Your task to perform on an android device: turn off picture-in-picture Image 0: 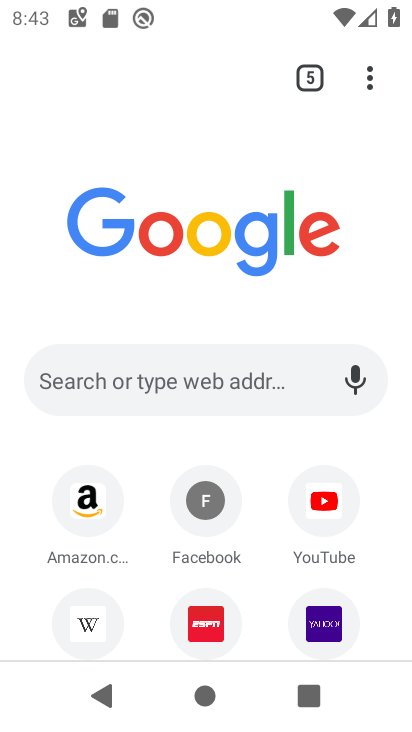
Step 0: press home button
Your task to perform on an android device: turn off picture-in-picture Image 1: 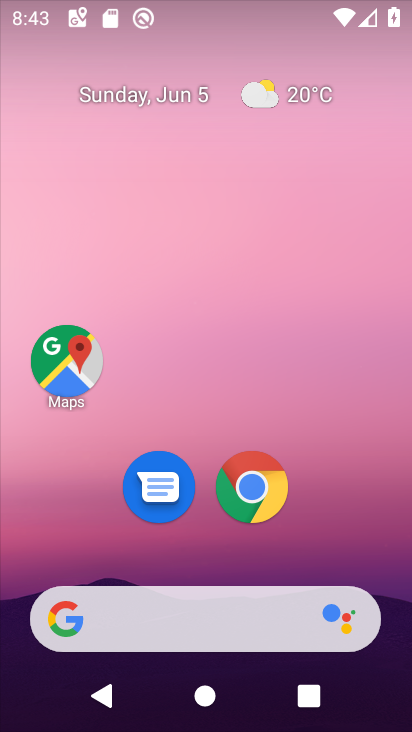
Step 1: drag from (190, 550) to (206, 240)
Your task to perform on an android device: turn off picture-in-picture Image 2: 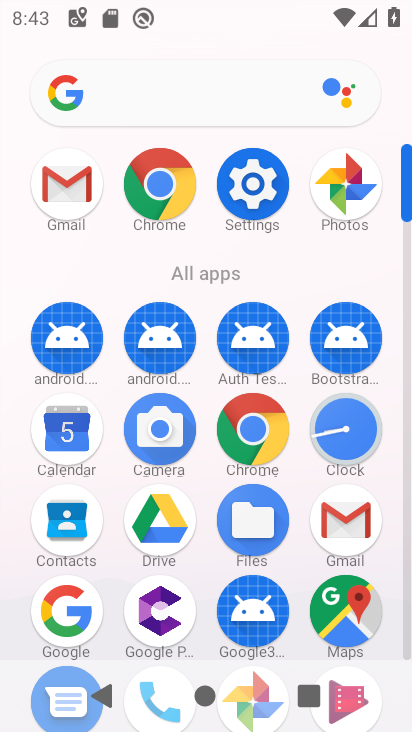
Step 2: click (247, 178)
Your task to perform on an android device: turn off picture-in-picture Image 3: 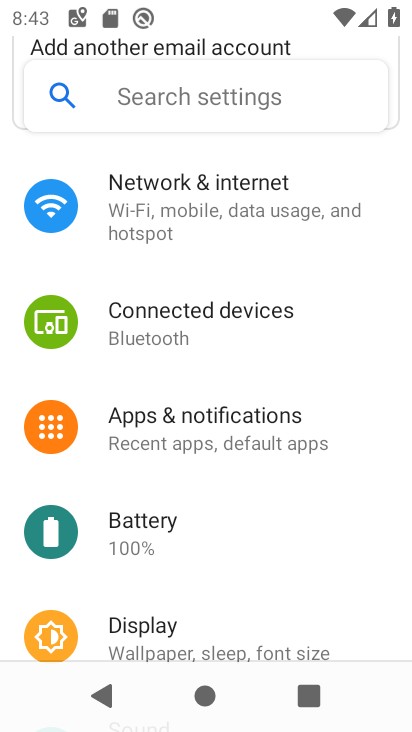
Step 3: click (215, 434)
Your task to perform on an android device: turn off picture-in-picture Image 4: 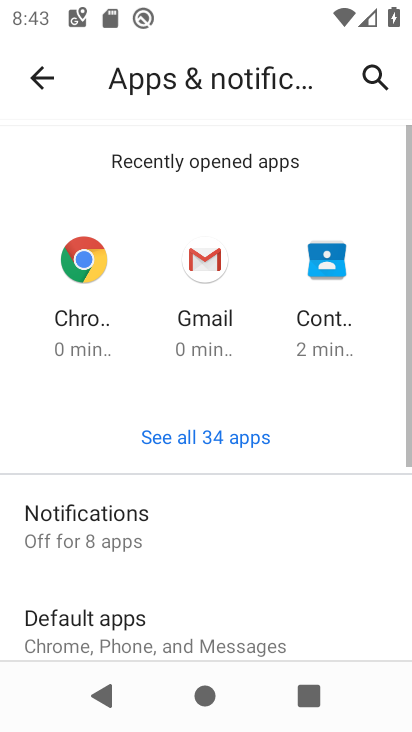
Step 4: drag from (201, 579) to (200, 279)
Your task to perform on an android device: turn off picture-in-picture Image 5: 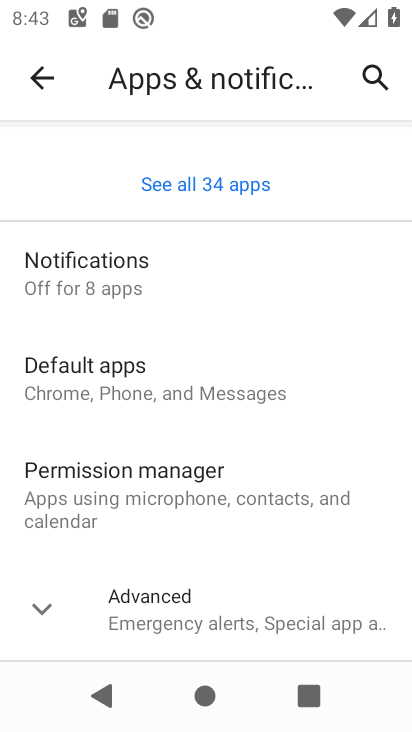
Step 5: click (188, 606)
Your task to perform on an android device: turn off picture-in-picture Image 6: 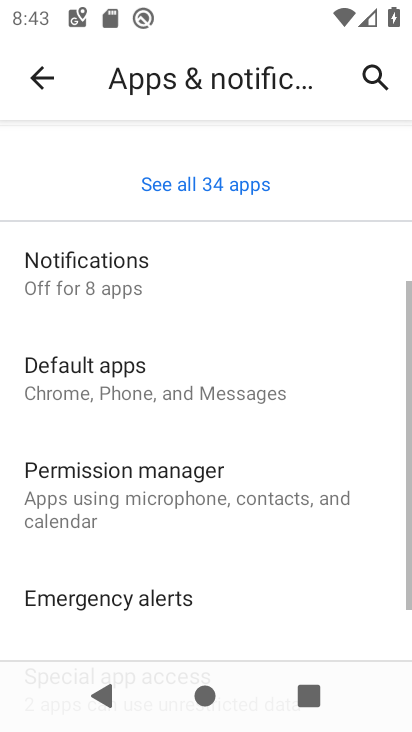
Step 6: drag from (228, 582) to (243, 155)
Your task to perform on an android device: turn off picture-in-picture Image 7: 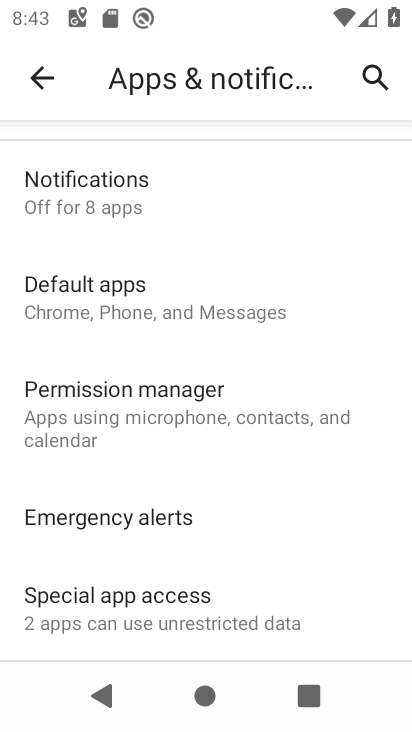
Step 7: click (135, 597)
Your task to perform on an android device: turn off picture-in-picture Image 8: 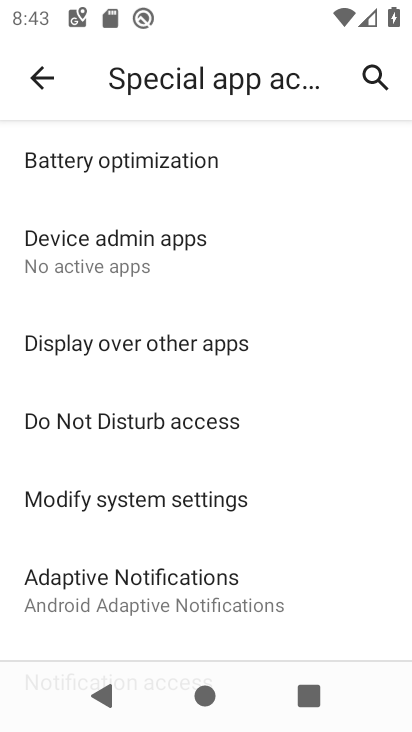
Step 8: drag from (185, 555) to (210, 176)
Your task to perform on an android device: turn off picture-in-picture Image 9: 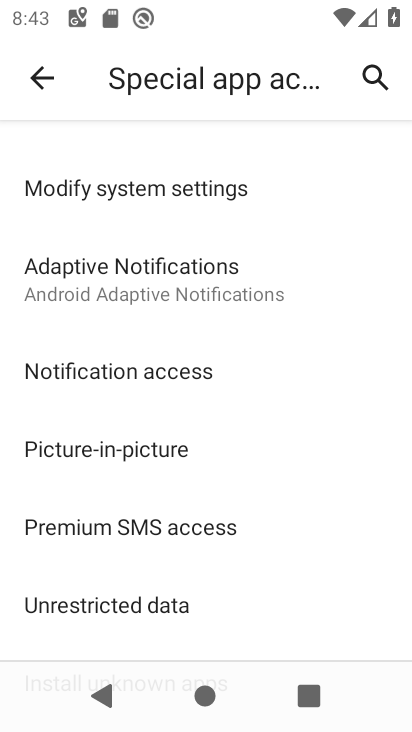
Step 9: click (175, 461)
Your task to perform on an android device: turn off picture-in-picture Image 10: 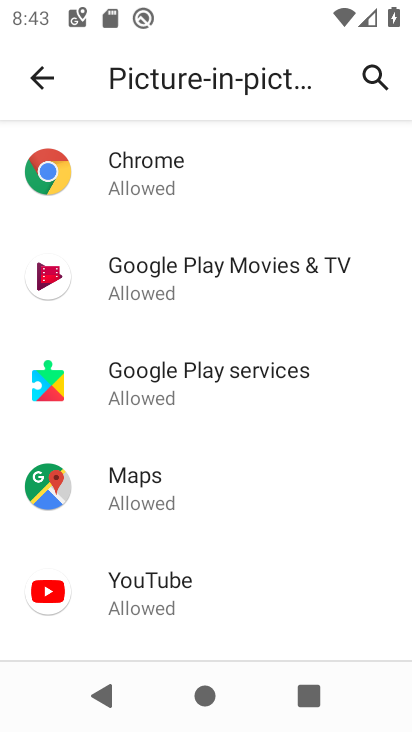
Step 10: click (160, 591)
Your task to perform on an android device: turn off picture-in-picture Image 11: 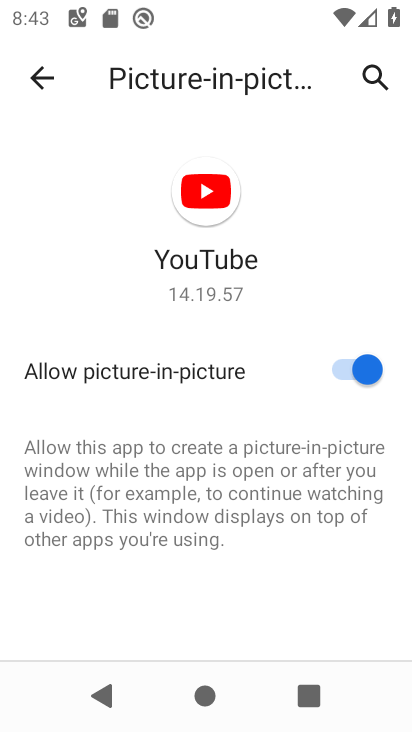
Step 11: click (345, 359)
Your task to perform on an android device: turn off picture-in-picture Image 12: 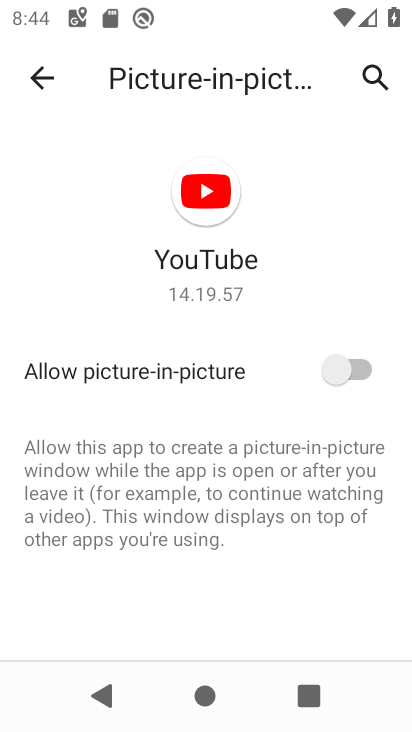
Step 12: task complete